Your task to perform on an android device: open a bookmark in the chrome app Image 0: 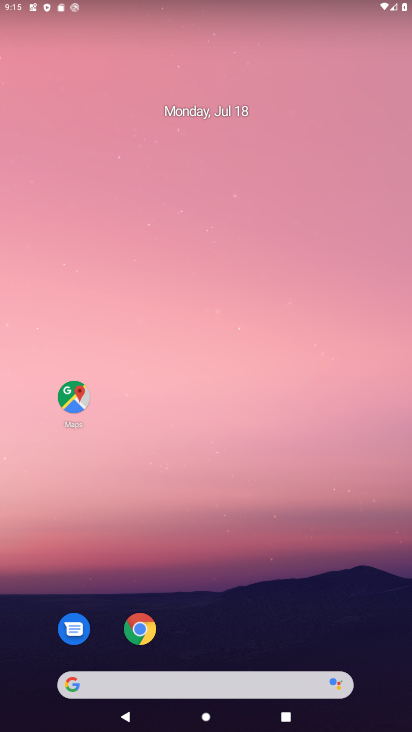
Step 0: drag from (308, 581) to (225, 8)
Your task to perform on an android device: open a bookmark in the chrome app Image 1: 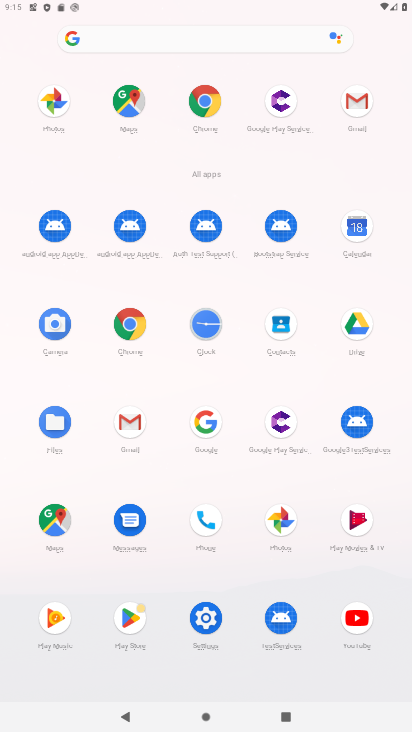
Step 1: click (125, 325)
Your task to perform on an android device: open a bookmark in the chrome app Image 2: 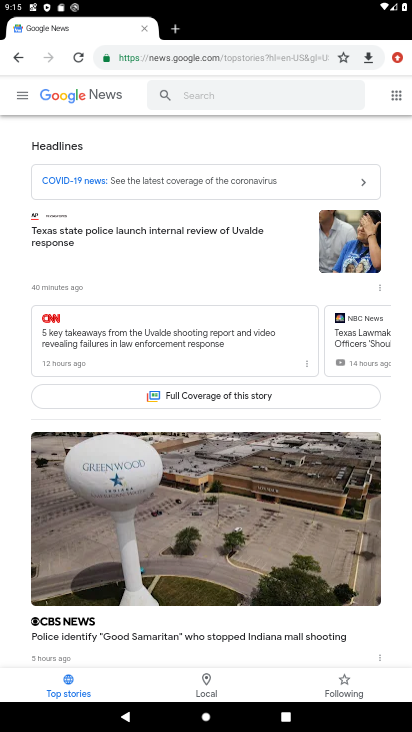
Step 2: drag from (406, 57) to (282, 154)
Your task to perform on an android device: open a bookmark in the chrome app Image 3: 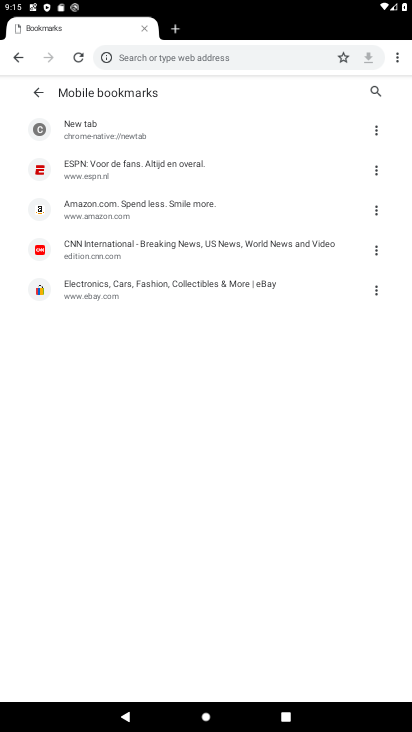
Step 3: click (160, 204)
Your task to perform on an android device: open a bookmark in the chrome app Image 4: 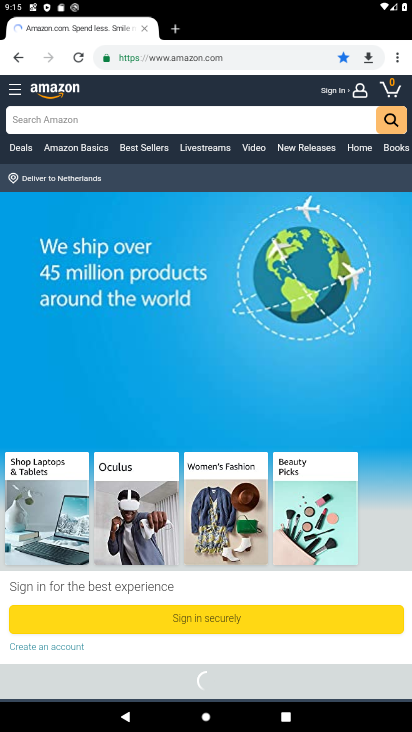
Step 4: task complete